Your task to perform on an android device: Go to eBay Image 0: 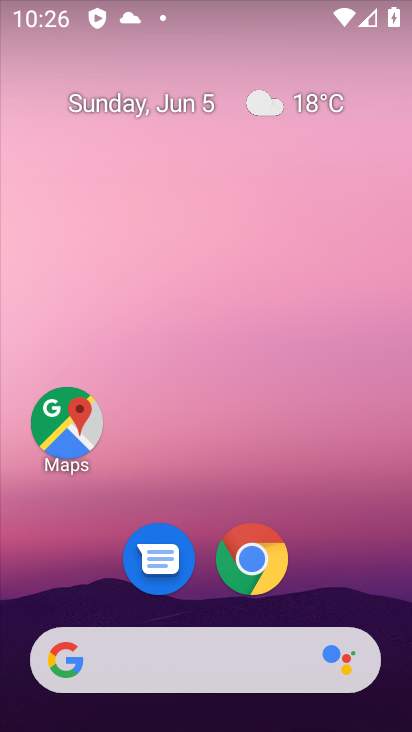
Step 0: click (243, 557)
Your task to perform on an android device: Go to eBay Image 1: 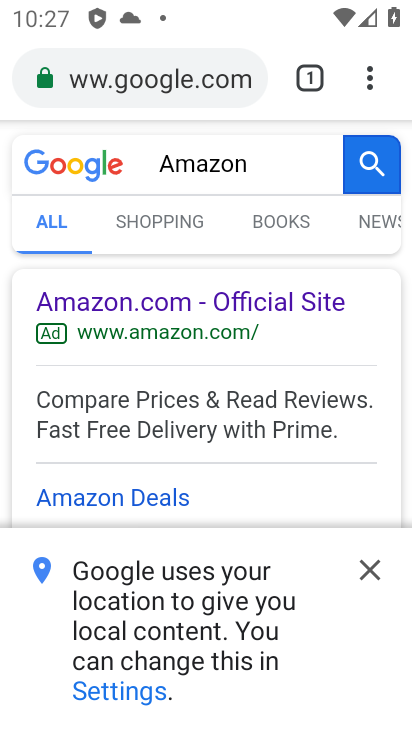
Step 1: click (249, 88)
Your task to perform on an android device: Go to eBay Image 2: 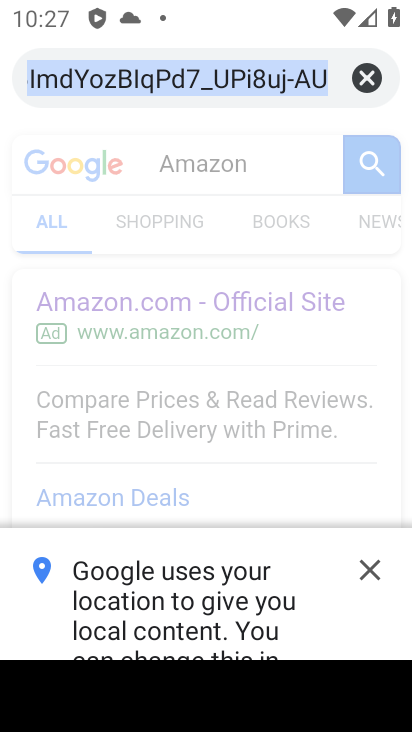
Step 2: click (360, 78)
Your task to perform on an android device: Go to eBay Image 3: 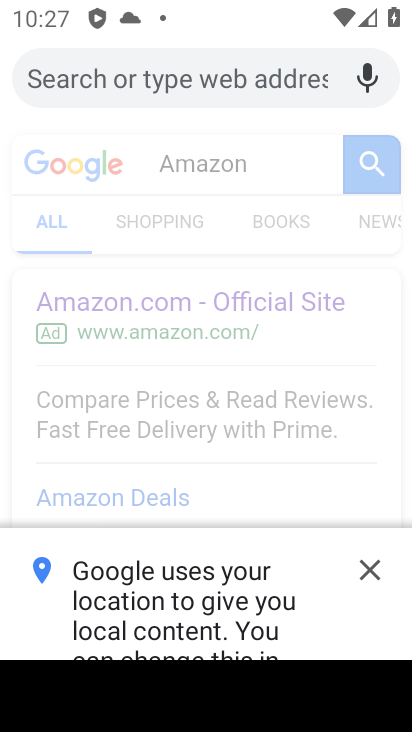
Step 3: type " eBay"
Your task to perform on an android device: Go to eBay Image 4: 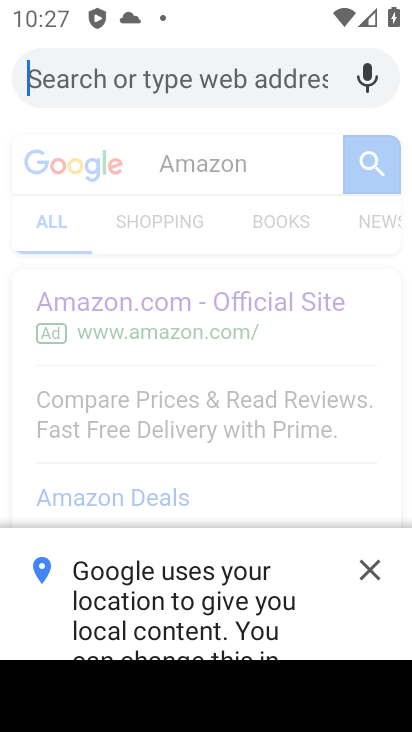
Step 4: click (409, 428)
Your task to perform on an android device: Go to eBay Image 5: 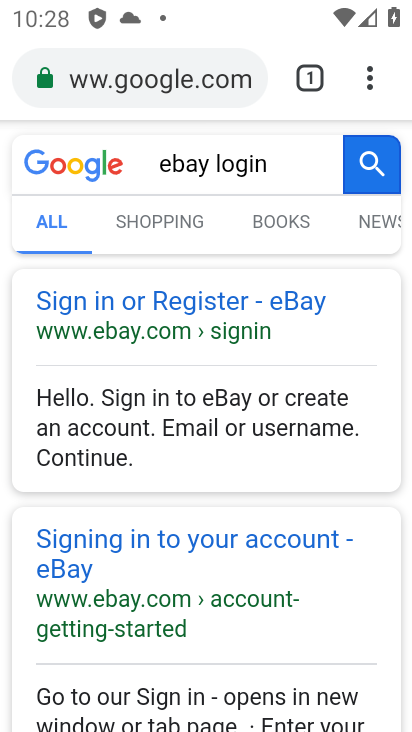
Step 5: type " eBay"
Your task to perform on an android device: Go to eBay Image 6: 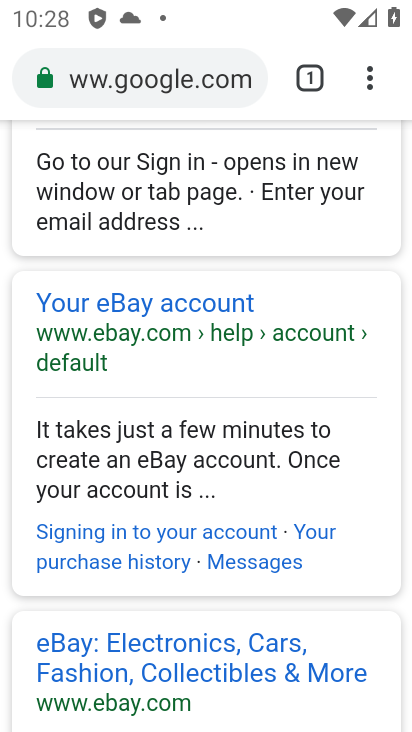
Step 6: task complete